Your task to perform on an android device: Turn on the flashlight Image 0: 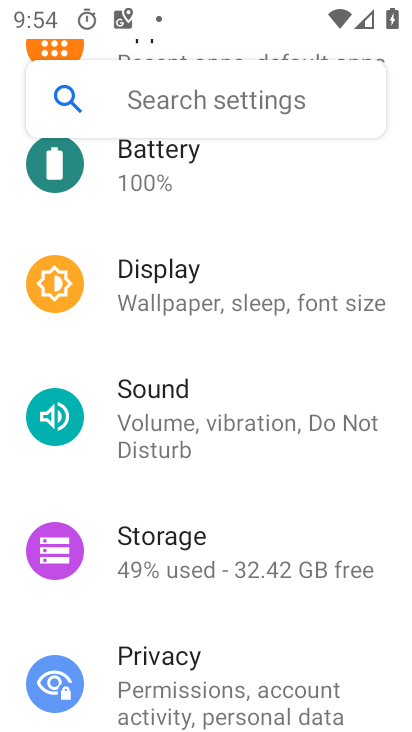
Step 0: drag from (217, 563) to (208, 302)
Your task to perform on an android device: Turn on the flashlight Image 1: 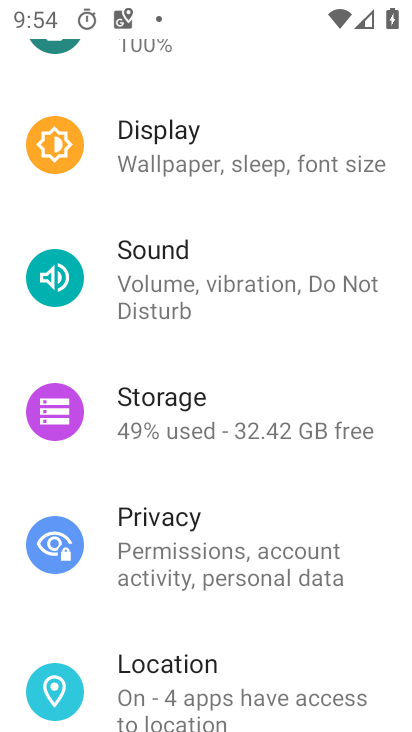
Step 1: task complete